Your task to perform on an android device: Open Yahoo.com Image 0: 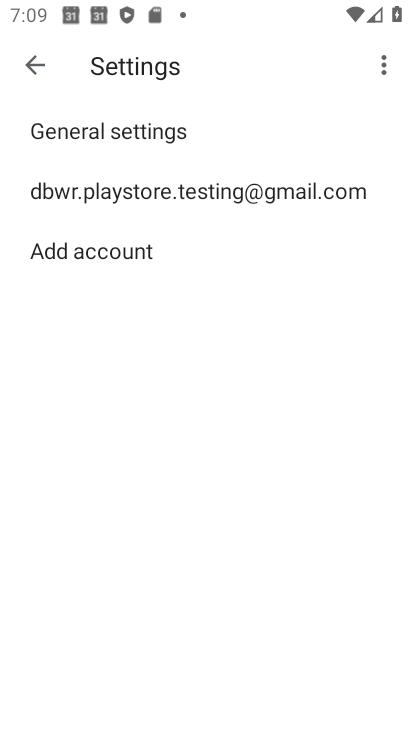
Step 0: press home button
Your task to perform on an android device: Open Yahoo.com Image 1: 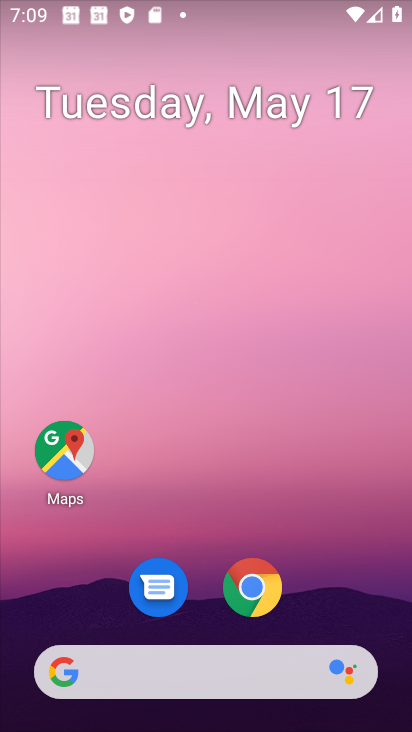
Step 1: drag from (192, 701) to (243, 247)
Your task to perform on an android device: Open Yahoo.com Image 2: 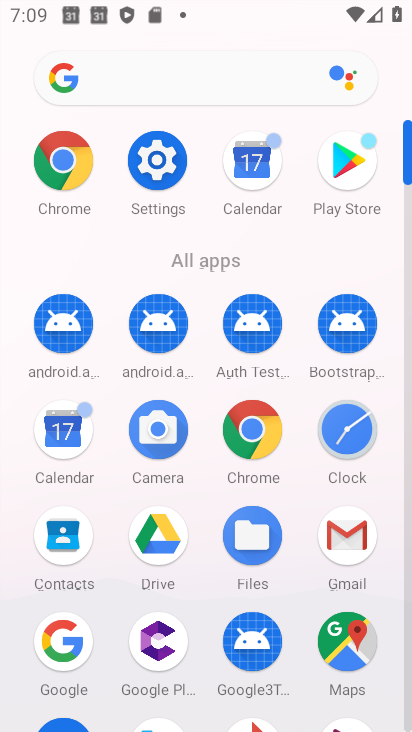
Step 2: click (65, 137)
Your task to perform on an android device: Open Yahoo.com Image 3: 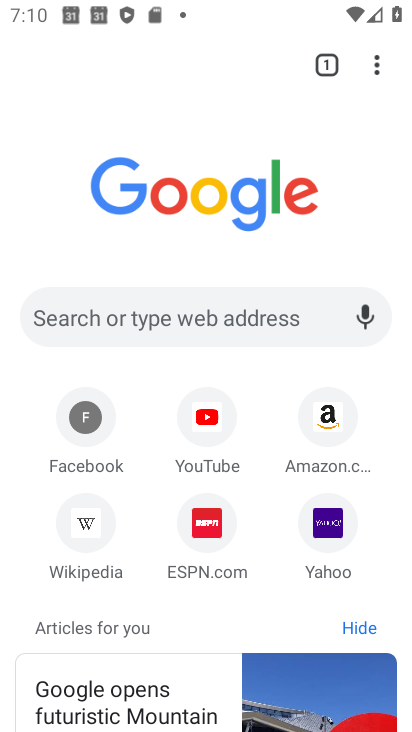
Step 3: click (345, 546)
Your task to perform on an android device: Open Yahoo.com Image 4: 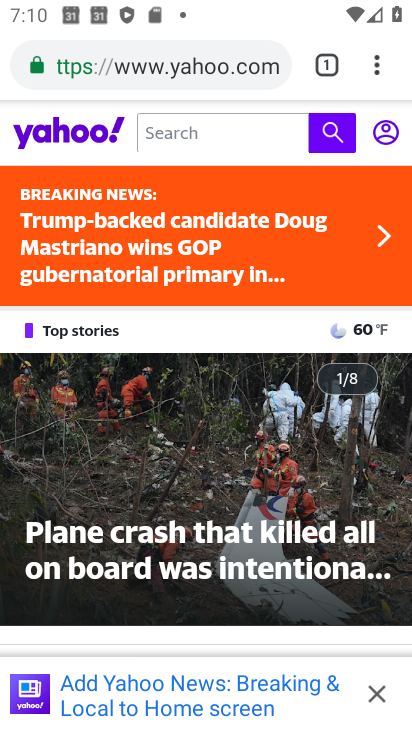
Step 4: task complete